Your task to perform on an android device: Go to wifi settings Image 0: 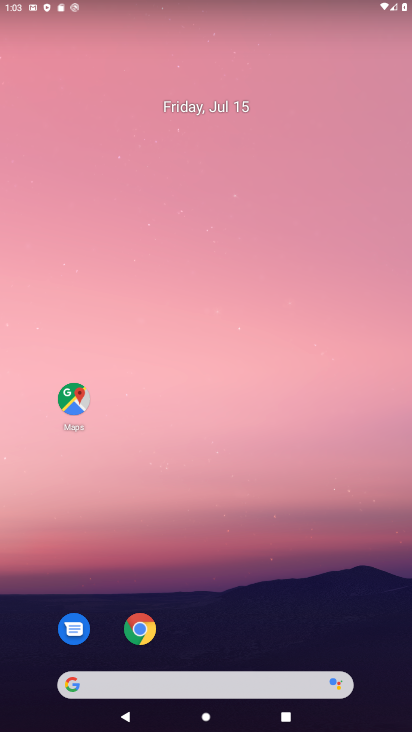
Step 0: drag from (197, 590) to (216, 136)
Your task to perform on an android device: Go to wifi settings Image 1: 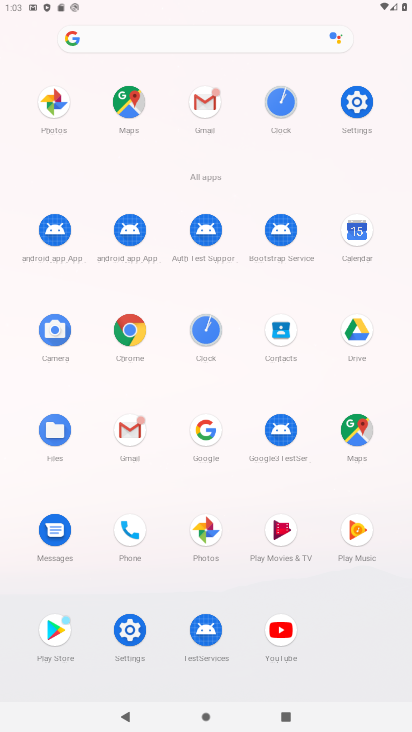
Step 1: click (355, 90)
Your task to perform on an android device: Go to wifi settings Image 2: 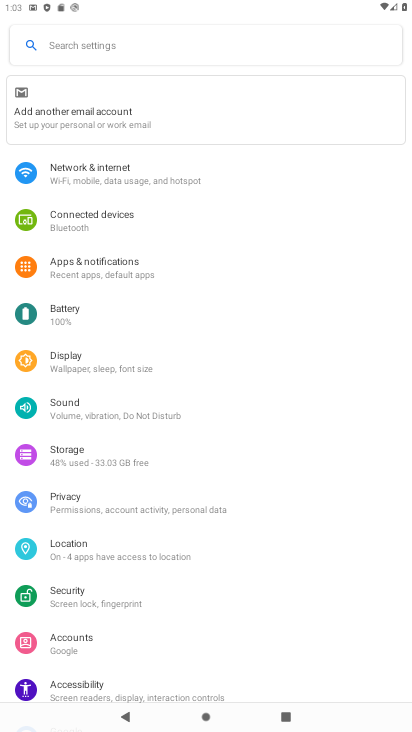
Step 2: click (162, 176)
Your task to perform on an android device: Go to wifi settings Image 3: 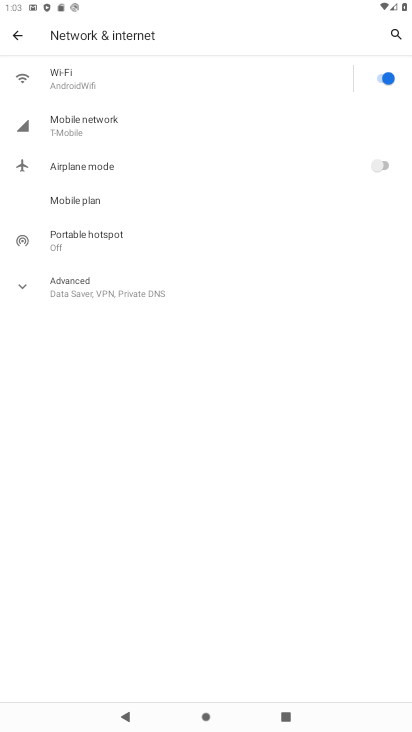
Step 3: click (184, 59)
Your task to perform on an android device: Go to wifi settings Image 4: 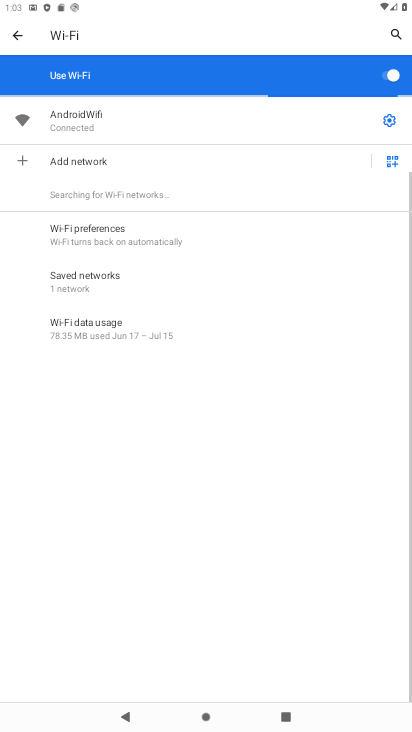
Step 4: click (390, 116)
Your task to perform on an android device: Go to wifi settings Image 5: 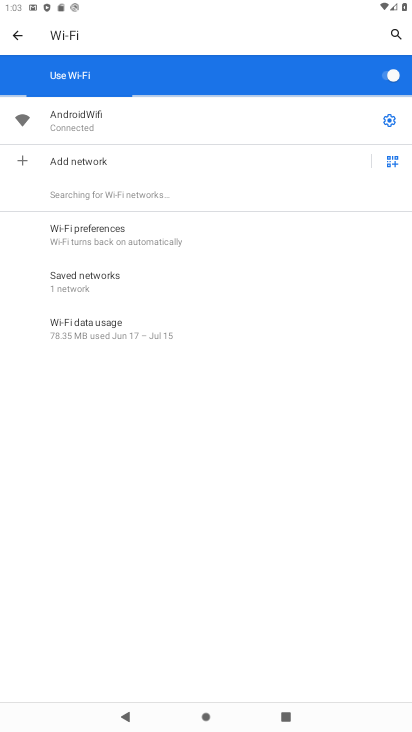
Step 5: task complete